Your task to perform on an android device: toggle location history Image 0: 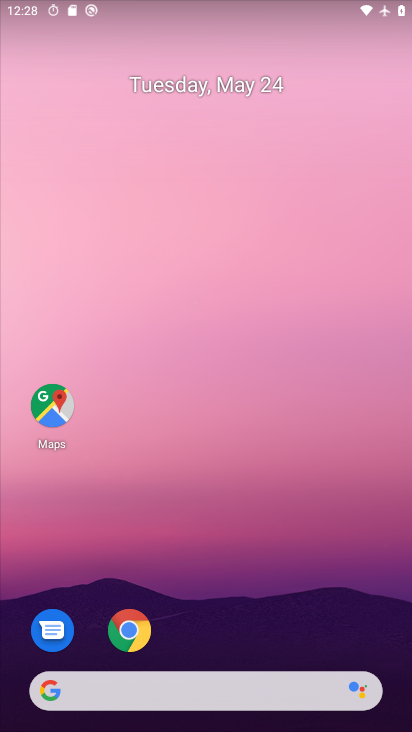
Step 0: drag from (211, 621) to (251, 119)
Your task to perform on an android device: toggle location history Image 1: 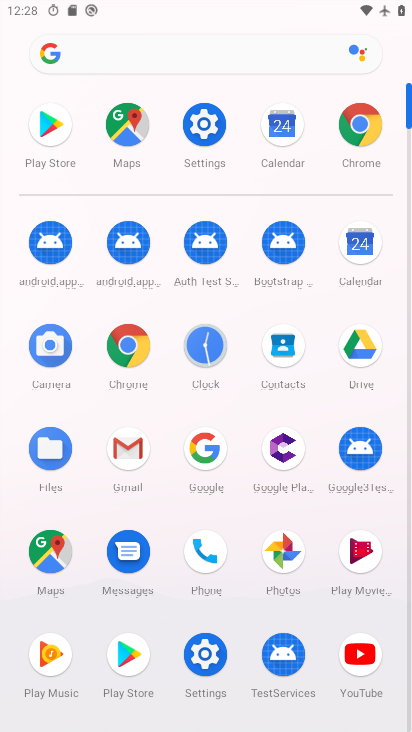
Step 1: click (220, 655)
Your task to perform on an android device: toggle location history Image 2: 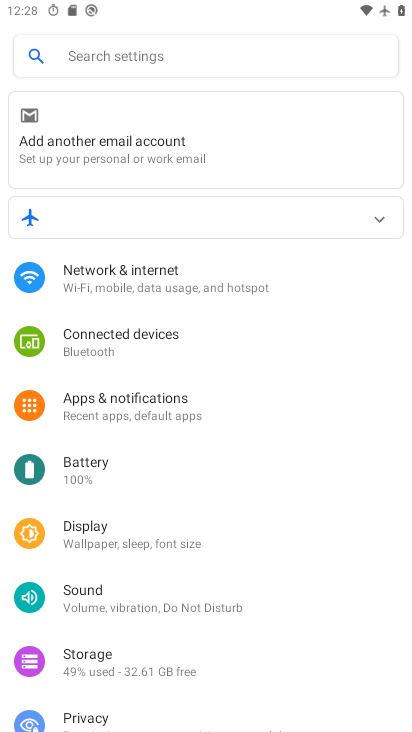
Step 2: click (389, 620)
Your task to perform on an android device: toggle location history Image 3: 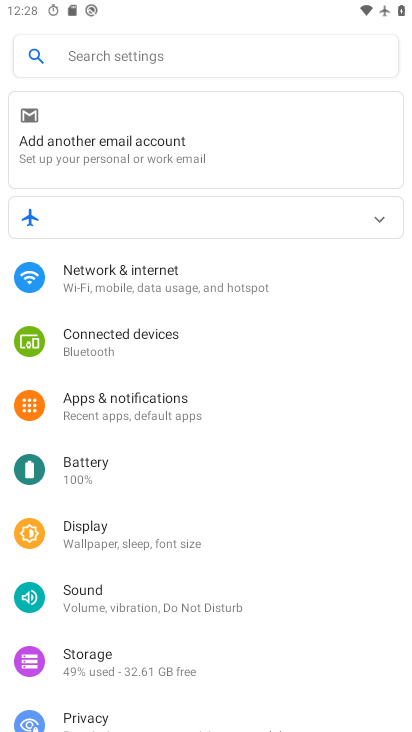
Step 3: drag from (244, 650) to (254, 372)
Your task to perform on an android device: toggle location history Image 4: 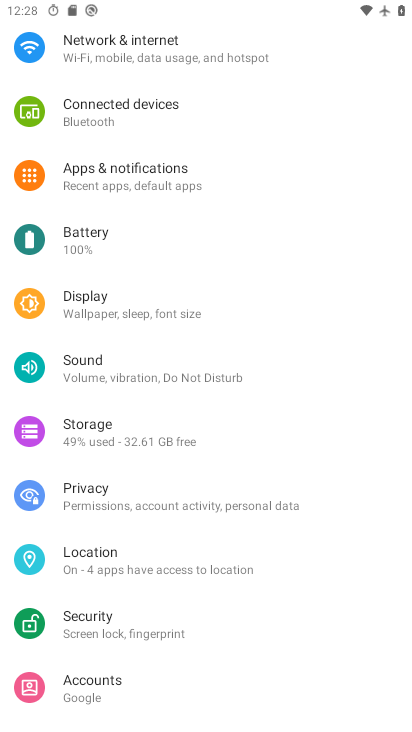
Step 4: click (139, 564)
Your task to perform on an android device: toggle location history Image 5: 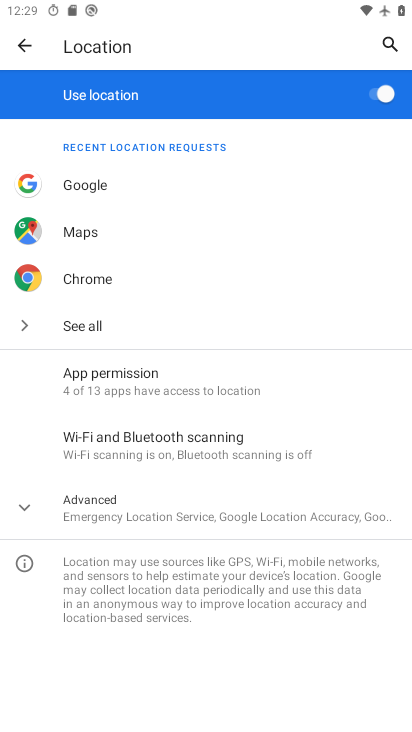
Step 5: click (143, 515)
Your task to perform on an android device: toggle location history Image 6: 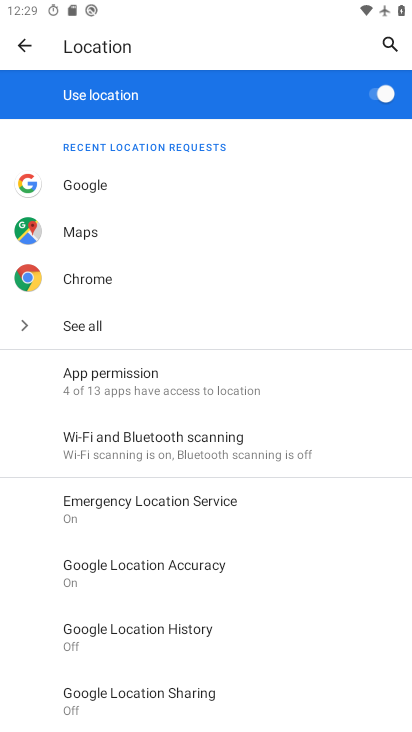
Step 6: click (194, 636)
Your task to perform on an android device: toggle location history Image 7: 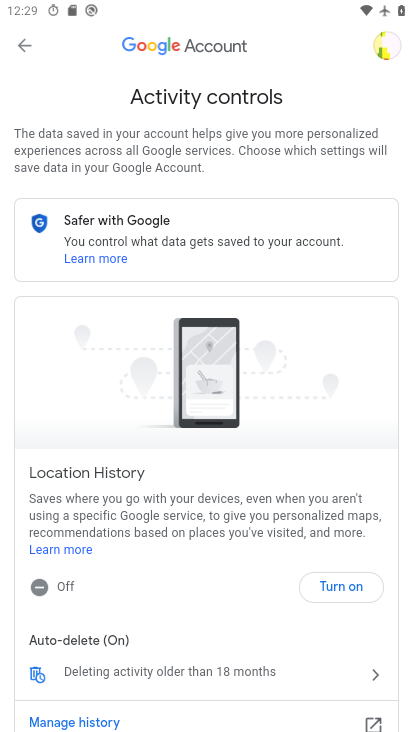
Step 7: click (321, 594)
Your task to perform on an android device: toggle location history Image 8: 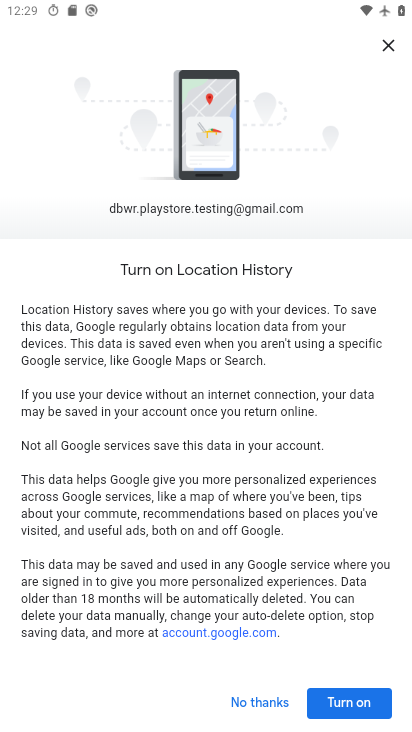
Step 8: click (352, 702)
Your task to perform on an android device: toggle location history Image 9: 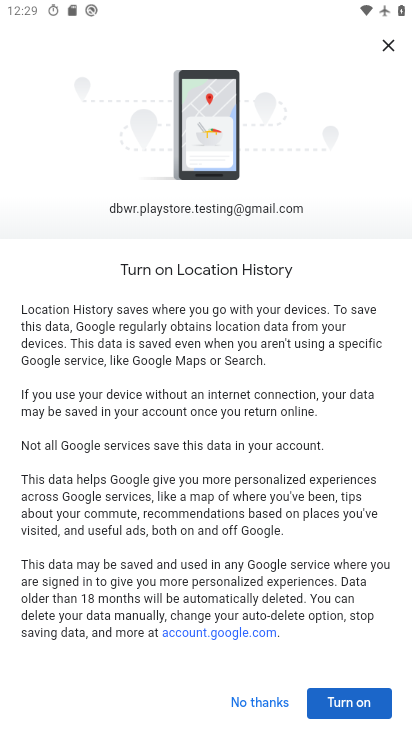
Step 9: click (354, 707)
Your task to perform on an android device: toggle location history Image 10: 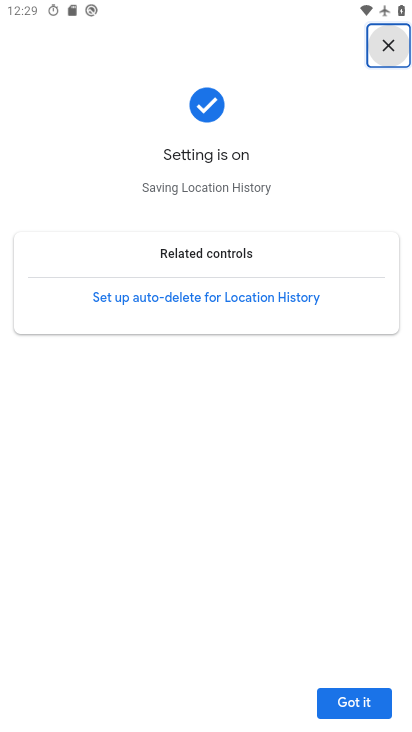
Step 10: click (373, 696)
Your task to perform on an android device: toggle location history Image 11: 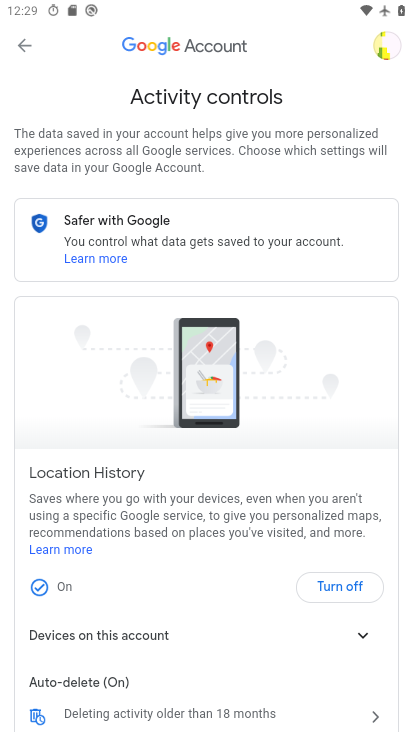
Step 11: task complete